Your task to perform on an android device: Go to Android settings Image 0: 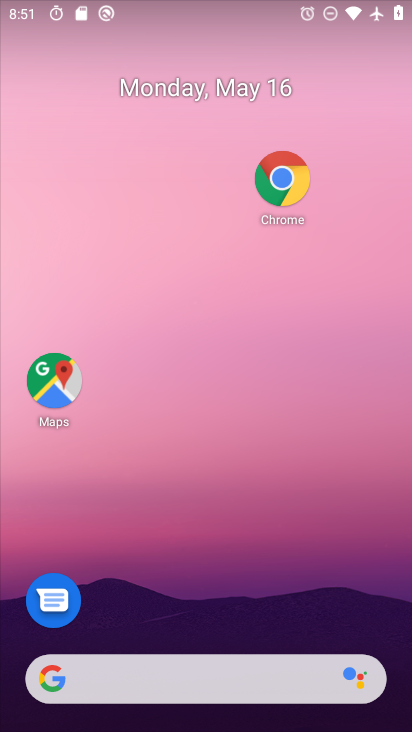
Step 0: press home button
Your task to perform on an android device: Go to Android settings Image 1: 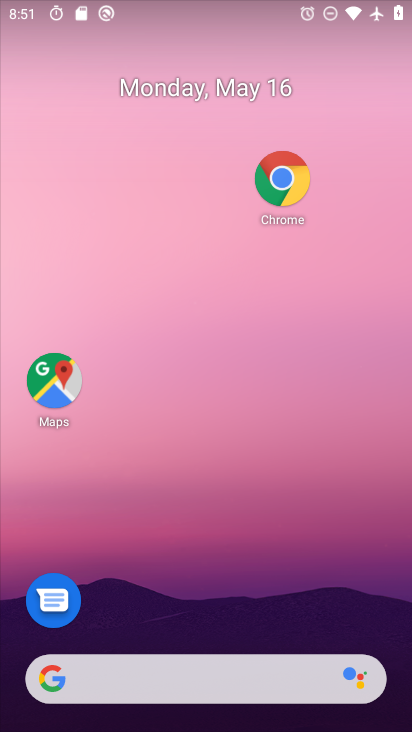
Step 1: drag from (165, 669) to (329, 79)
Your task to perform on an android device: Go to Android settings Image 2: 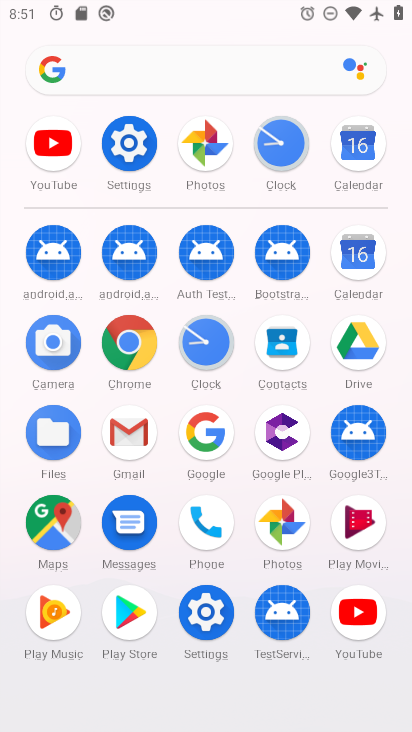
Step 2: click (137, 136)
Your task to perform on an android device: Go to Android settings Image 3: 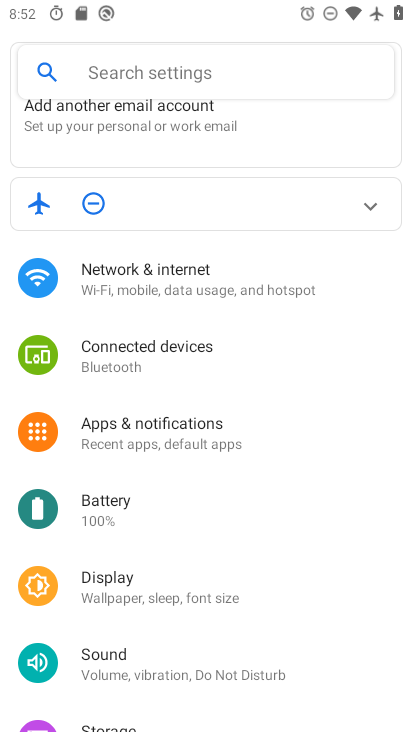
Step 3: task complete